Your task to perform on an android device: What's the weather going to be this weekend? Image 0: 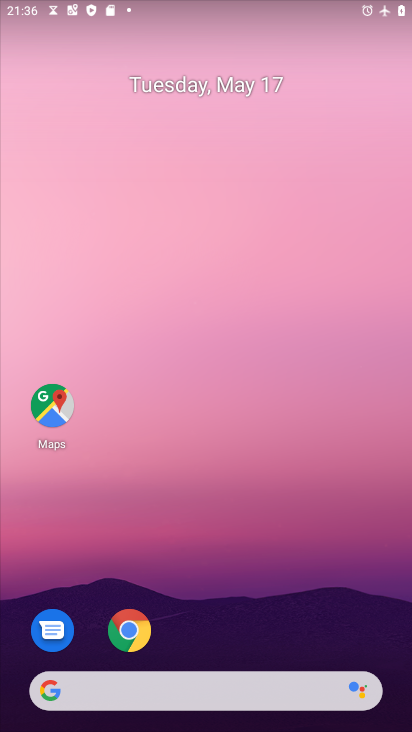
Step 0: click (140, 640)
Your task to perform on an android device: What's the weather going to be this weekend? Image 1: 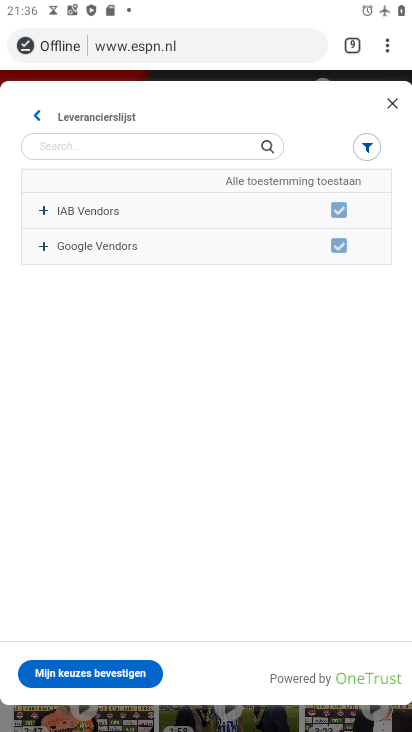
Step 1: click (354, 50)
Your task to perform on an android device: What's the weather going to be this weekend? Image 2: 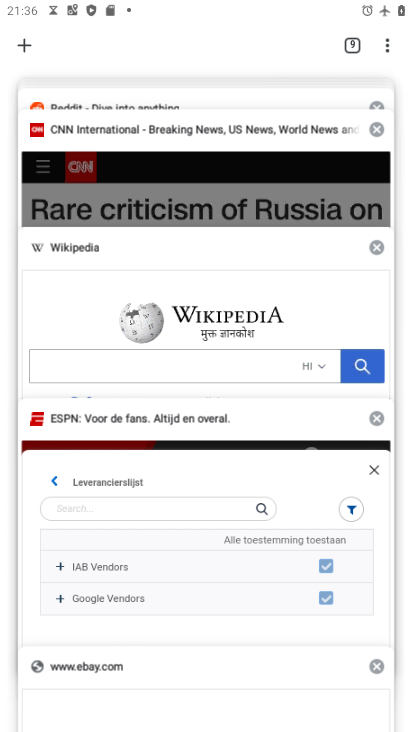
Step 2: click (21, 46)
Your task to perform on an android device: What's the weather going to be this weekend? Image 3: 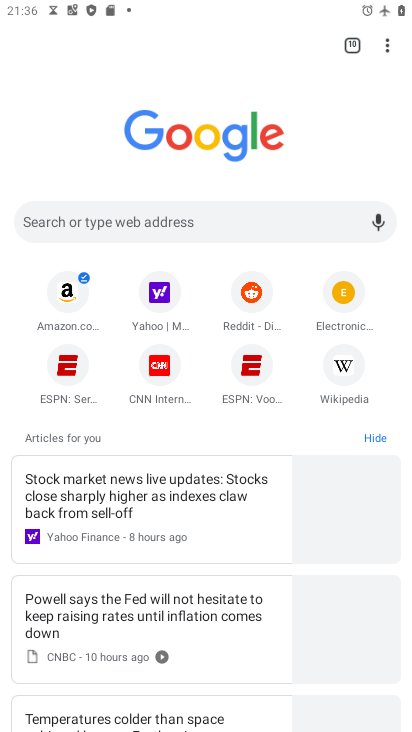
Step 3: click (106, 212)
Your task to perform on an android device: What's the weather going to be this weekend? Image 4: 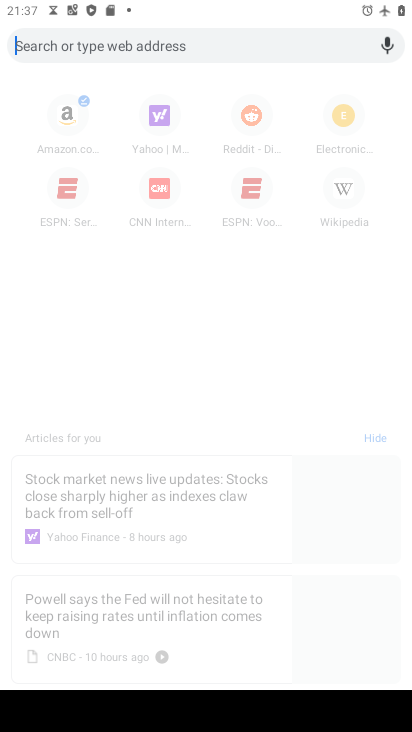
Step 4: type "what's the weather going to be his weekend?"
Your task to perform on an android device: What's the weather going to be this weekend? Image 5: 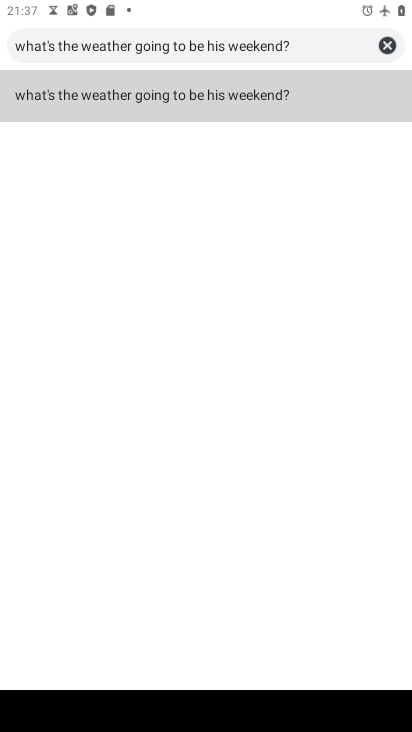
Step 5: click (105, 101)
Your task to perform on an android device: What's the weather going to be this weekend? Image 6: 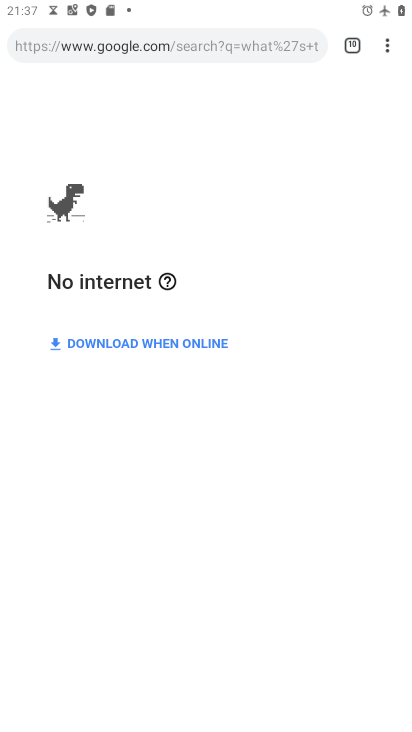
Step 6: drag from (197, 510) to (194, 470)
Your task to perform on an android device: What's the weather going to be this weekend? Image 7: 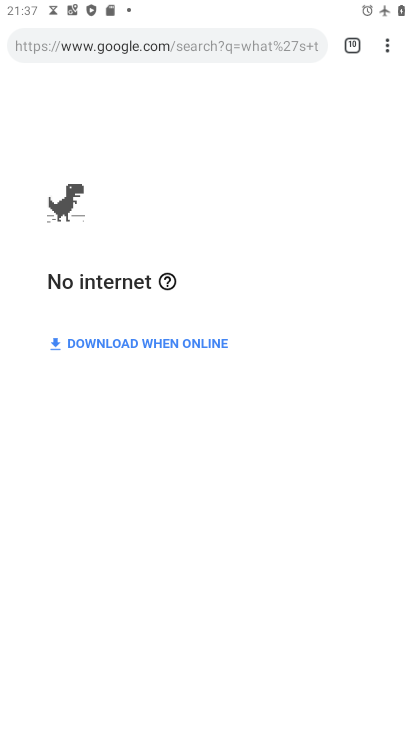
Step 7: drag from (194, 470) to (194, 436)
Your task to perform on an android device: What's the weather going to be this weekend? Image 8: 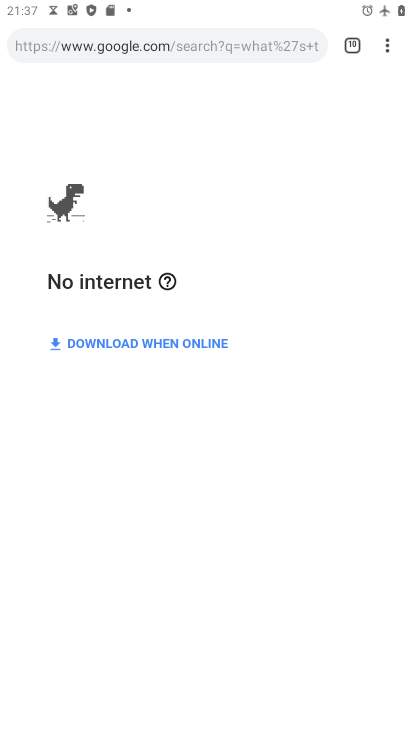
Step 8: click (194, 436)
Your task to perform on an android device: What's the weather going to be this weekend? Image 9: 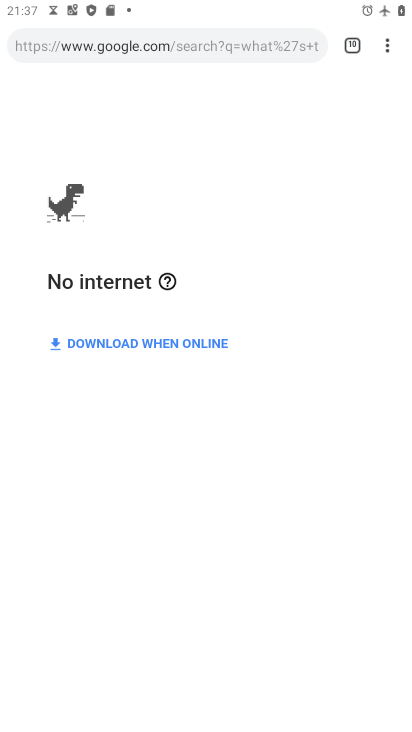
Step 9: click (194, 436)
Your task to perform on an android device: What's the weather going to be this weekend? Image 10: 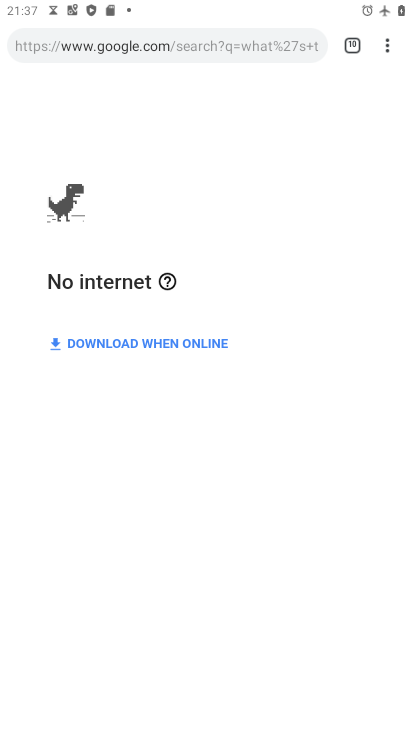
Step 10: click (194, 436)
Your task to perform on an android device: What's the weather going to be this weekend? Image 11: 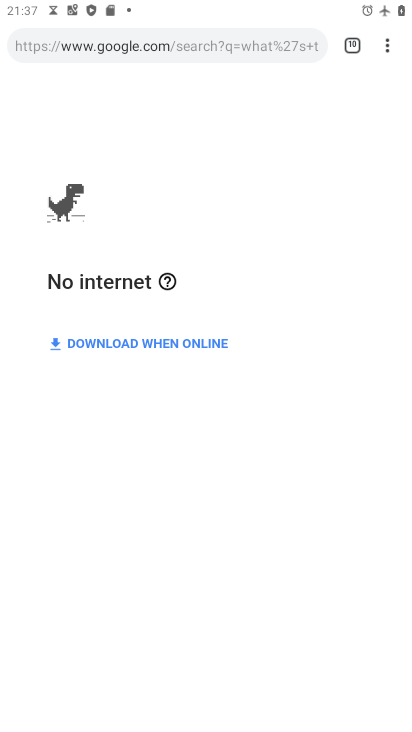
Step 11: task complete